Your task to perform on an android device: Open calendar and show me the second week of next month Image 0: 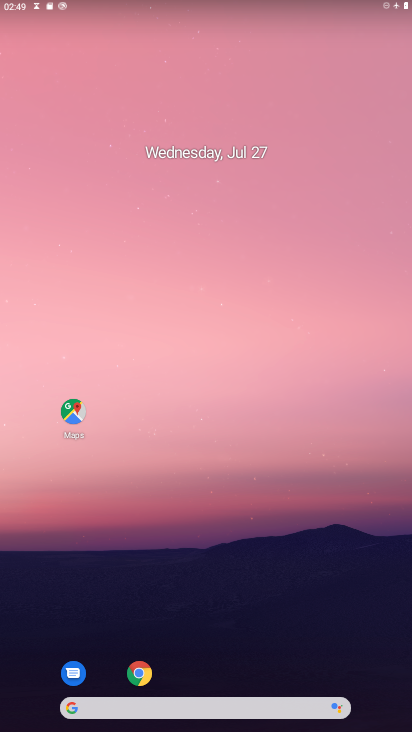
Step 0: drag from (248, 689) to (248, 245)
Your task to perform on an android device: Open calendar and show me the second week of next month Image 1: 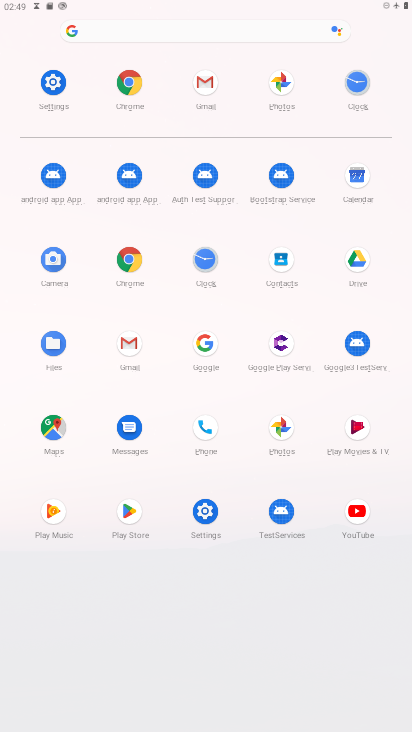
Step 1: click (355, 174)
Your task to perform on an android device: Open calendar and show me the second week of next month Image 2: 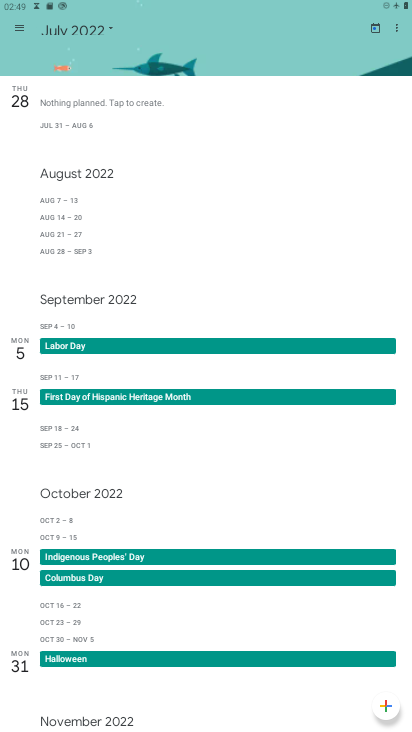
Step 2: click (27, 29)
Your task to perform on an android device: Open calendar and show me the second week of next month Image 3: 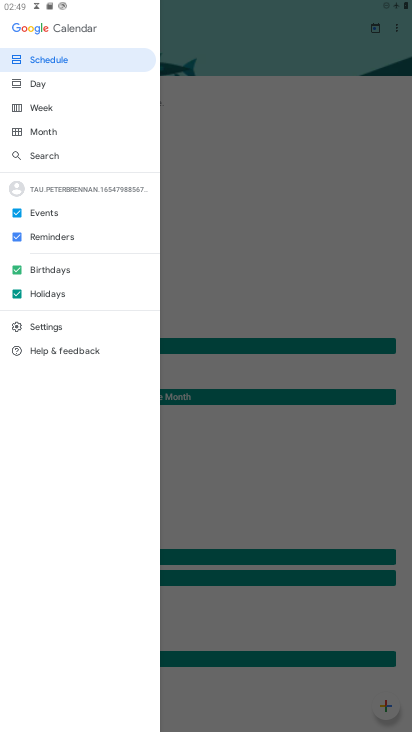
Step 3: click (50, 110)
Your task to perform on an android device: Open calendar and show me the second week of next month Image 4: 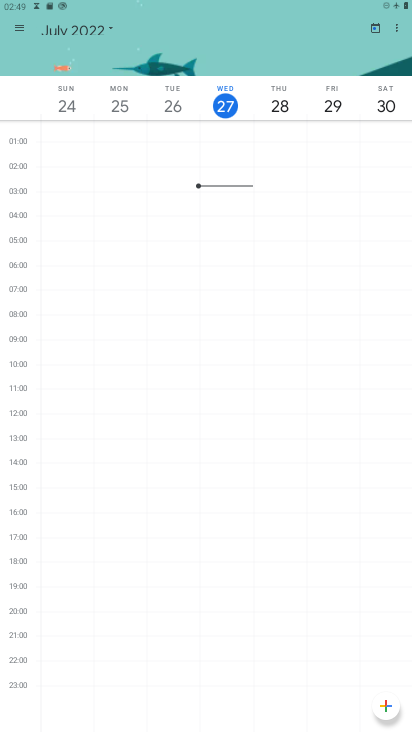
Step 4: task complete